Your task to perform on an android device: delete location history Image 0: 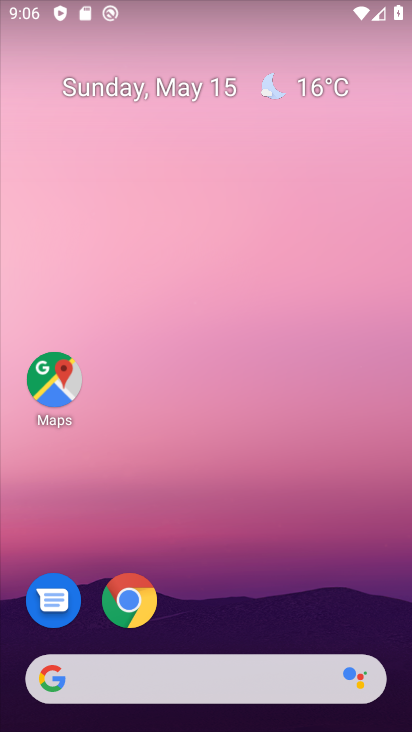
Step 0: drag from (271, 566) to (314, 171)
Your task to perform on an android device: delete location history Image 1: 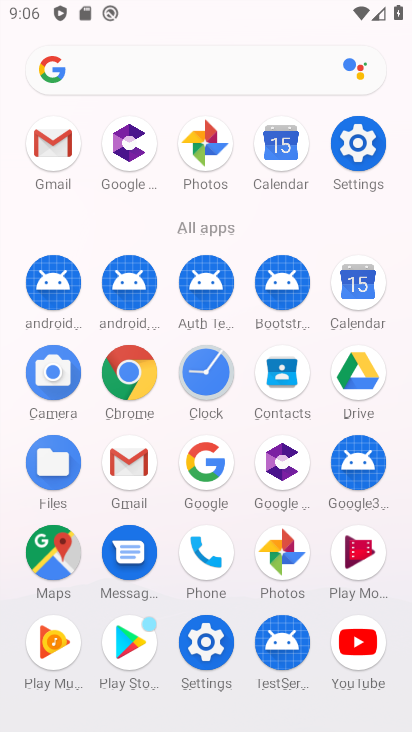
Step 1: click (359, 160)
Your task to perform on an android device: delete location history Image 2: 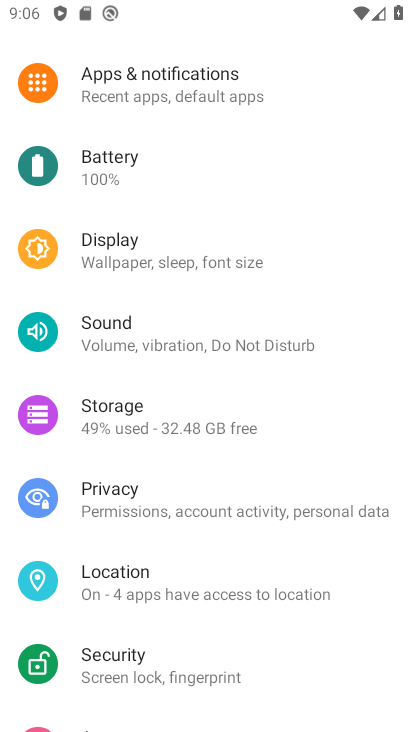
Step 2: click (171, 590)
Your task to perform on an android device: delete location history Image 3: 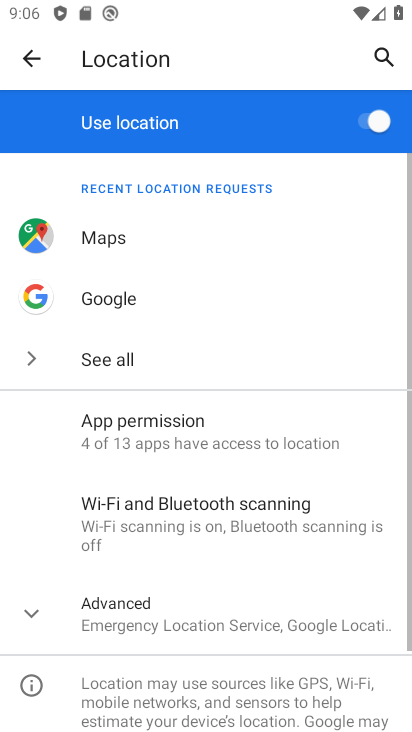
Step 3: click (25, 602)
Your task to perform on an android device: delete location history Image 4: 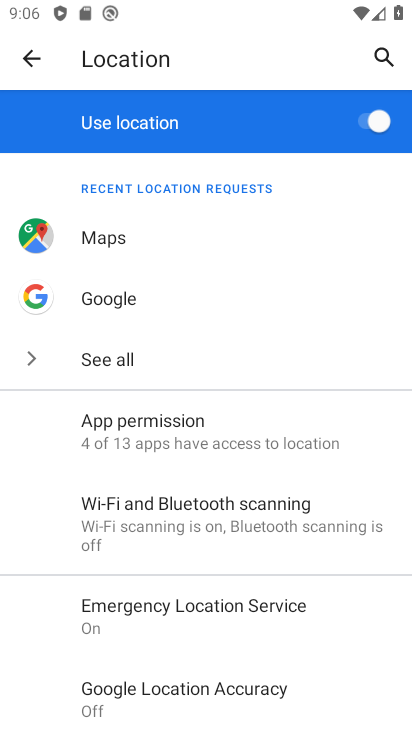
Step 4: drag from (308, 620) to (369, 336)
Your task to perform on an android device: delete location history Image 5: 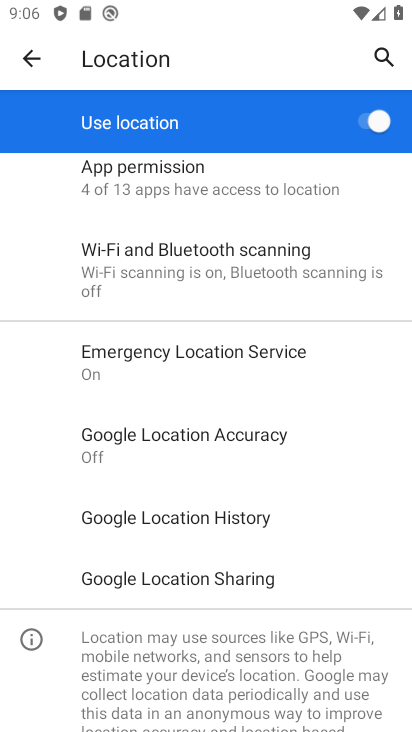
Step 5: click (236, 529)
Your task to perform on an android device: delete location history Image 6: 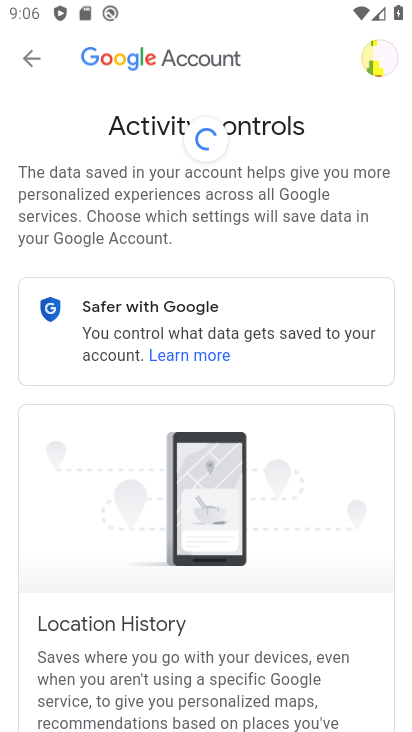
Step 6: drag from (294, 488) to (401, 169)
Your task to perform on an android device: delete location history Image 7: 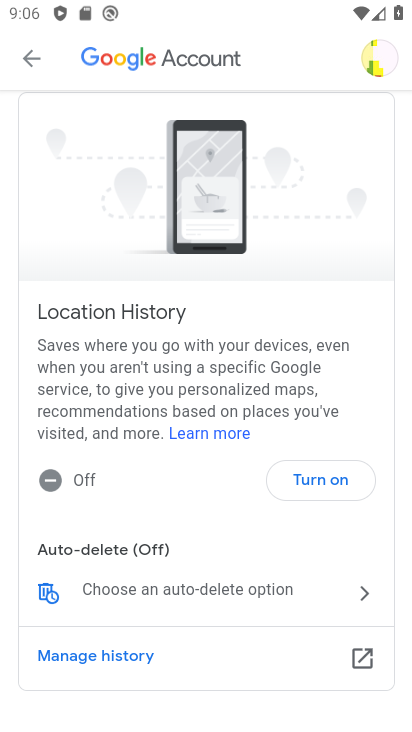
Step 7: click (322, 486)
Your task to perform on an android device: delete location history Image 8: 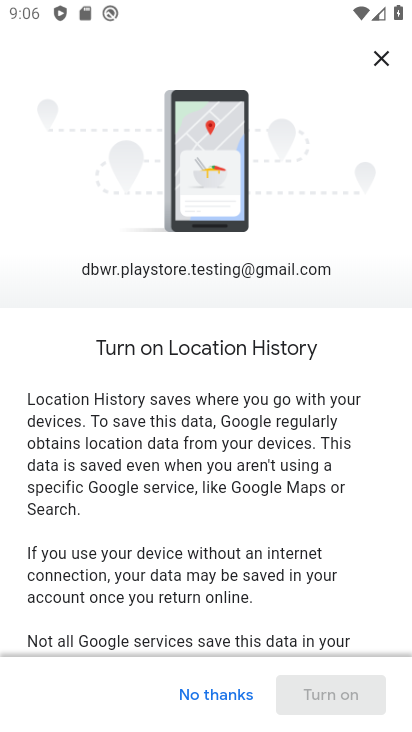
Step 8: drag from (305, 503) to (335, 173)
Your task to perform on an android device: delete location history Image 9: 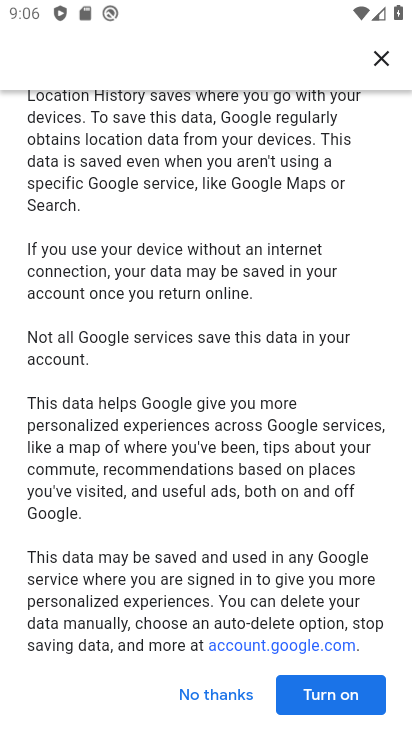
Step 9: drag from (331, 551) to (336, 366)
Your task to perform on an android device: delete location history Image 10: 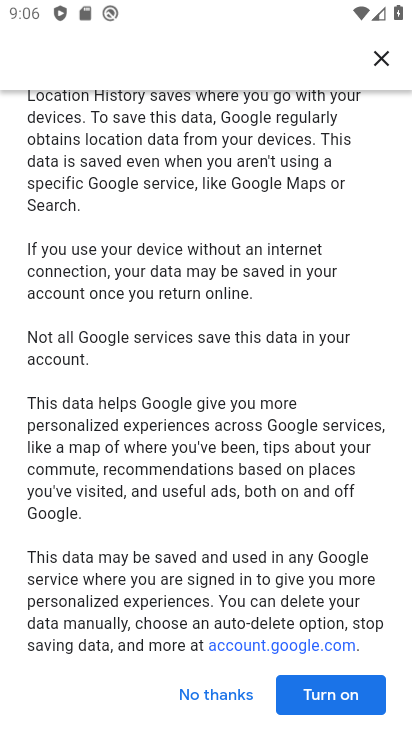
Step 10: click (324, 699)
Your task to perform on an android device: delete location history Image 11: 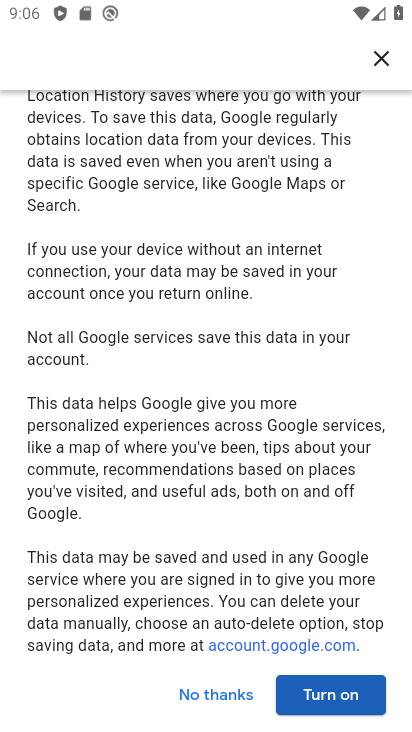
Step 11: click (346, 711)
Your task to perform on an android device: delete location history Image 12: 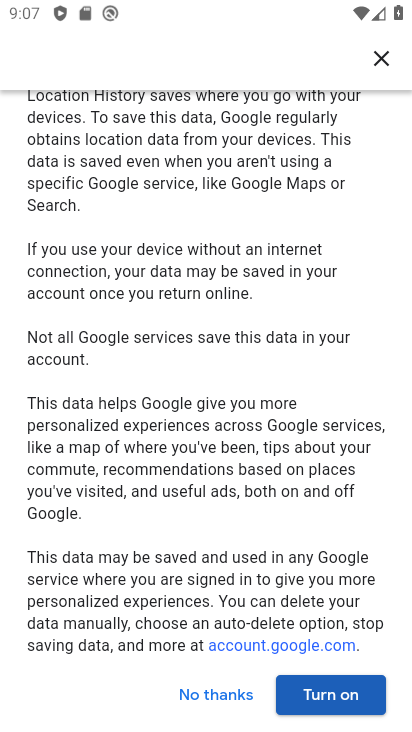
Step 12: click (362, 700)
Your task to perform on an android device: delete location history Image 13: 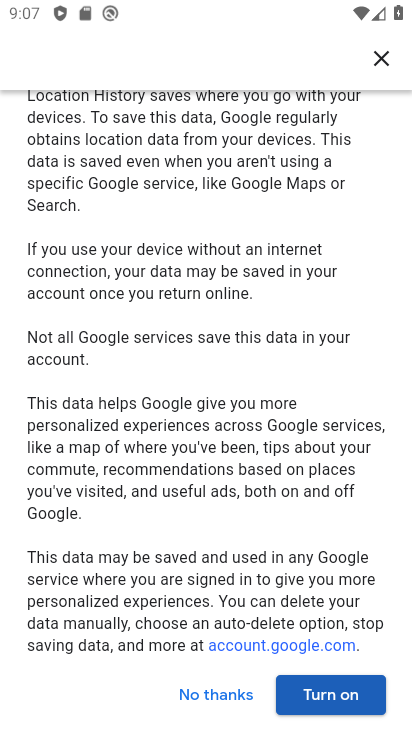
Step 13: click (350, 698)
Your task to perform on an android device: delete location history Image 14: 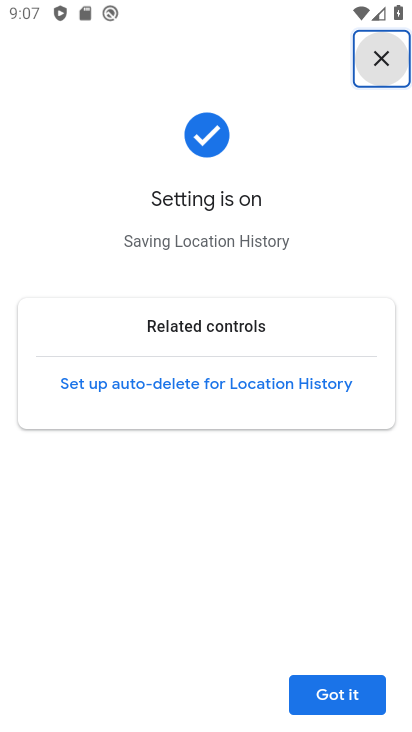
Step 14: click (340, 700)
Your task to perform on an android device: delete location history Image 15: 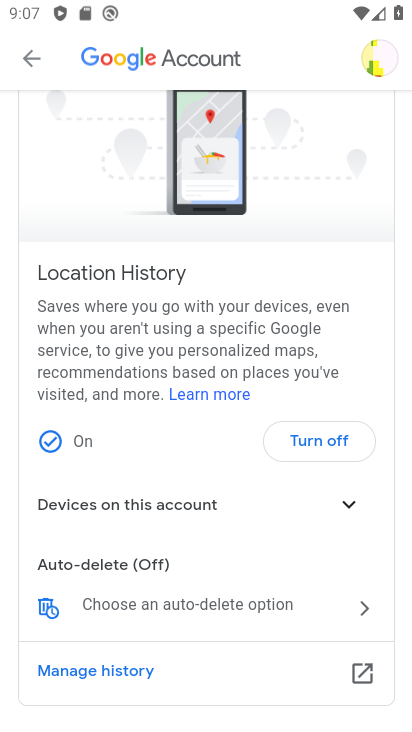
Step 15: task complete